Your task to perform on an android device: Go to location settings Image 0: 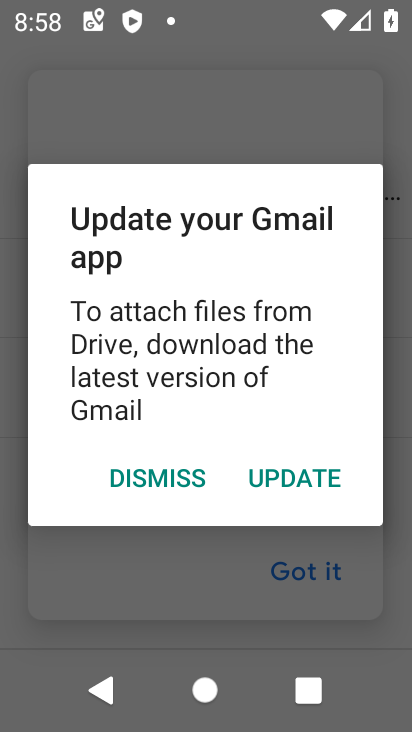
Step 0: press home button
Your task to perform on an android device: Go to location settings Image 1: 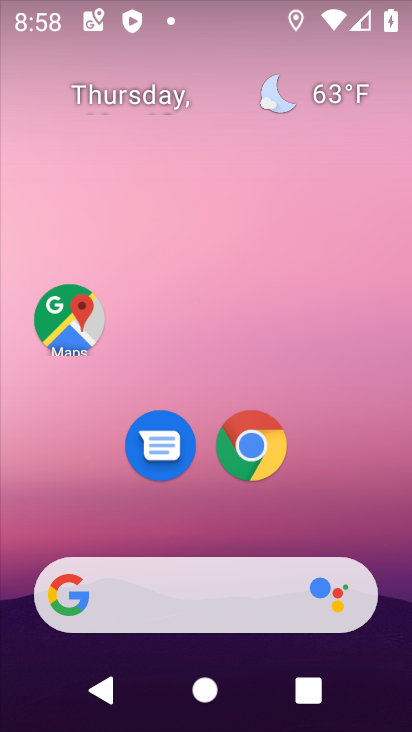
Step 1: drag from (215, 499) to (242, 91)
Your task to perform on an android device: Go to location settings Image 2: 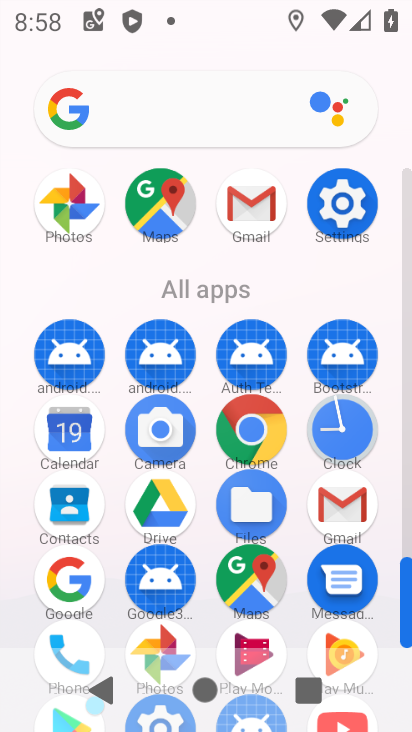
Step 2: click (346, 227)
Your task to perform on an android device: Go to location settings Image 3: 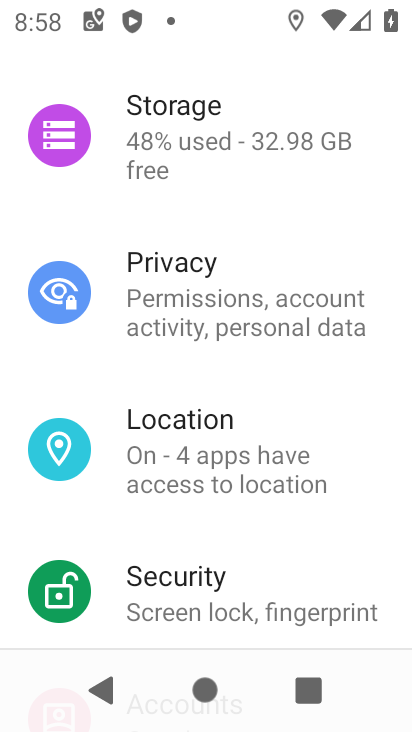
Step 3: click (210, 456)
Your task to perform on an android device: Go to location settings Image 4: 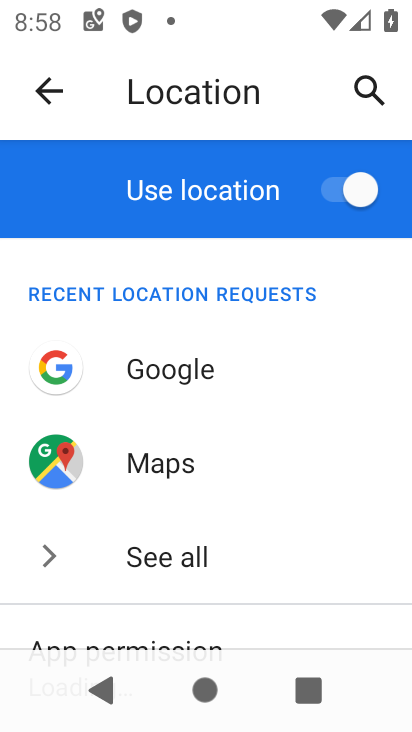
Step 4: task complete